Your task to perform on an android device: Do I have any events today? Image 0: 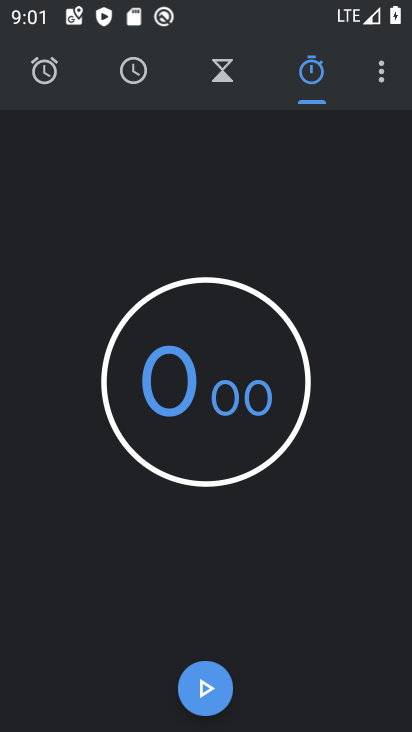
Step 0: press home button
Your task to perform on an android device: Do I have any events today? Image 1: 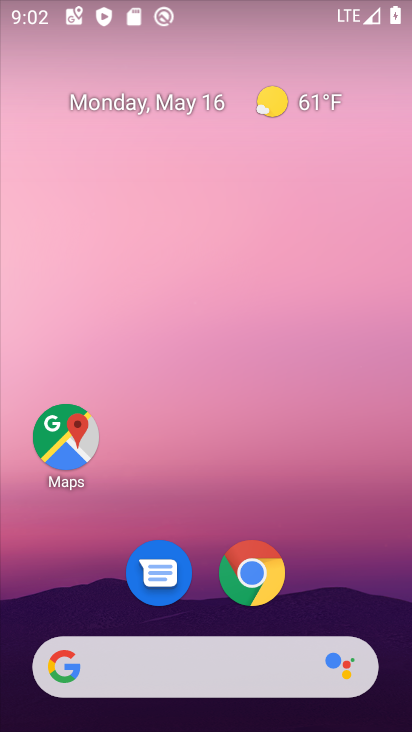
Step 1: drag from (213, 723) to (190, 193)
Your task to perform on an android device: Do I have any events today? Image 2: 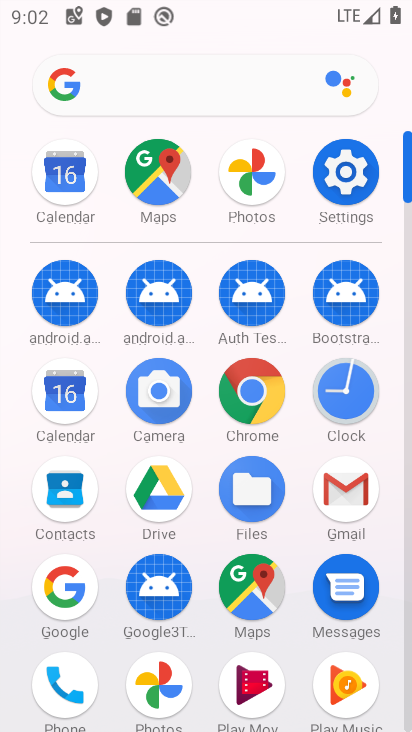
Step 2: click (67, 395)
Your task to perform on an android device: Do I have any events today? Image 3: 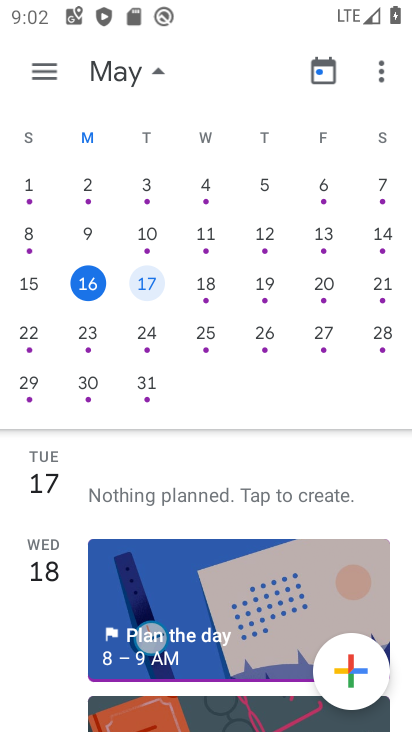
Step 3: click (39, 67)
Your task to perform on an android device: Do I have any events today? Image 4: 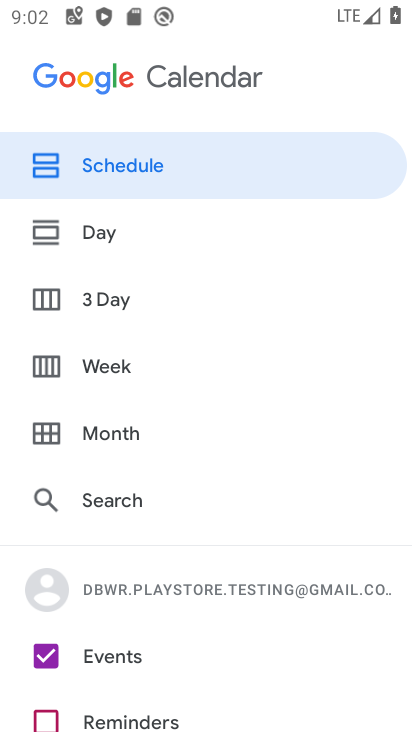
Step 4: click (150, 171)
Your task to perform on an android device: Do I have any events today? Image 5: 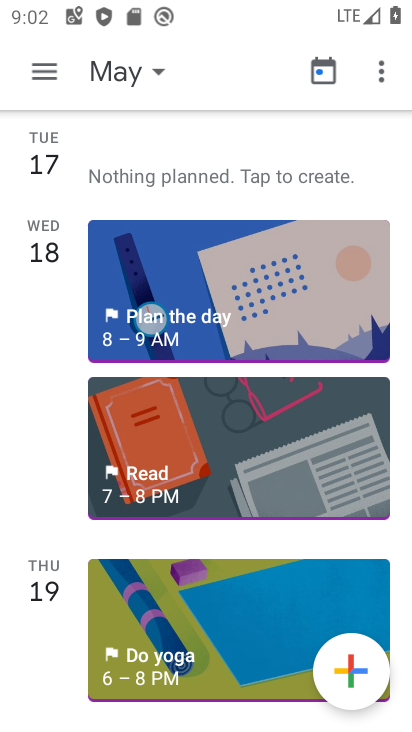
Step 5: task complete